Your task to perform on an android device: Search for sushi restaurants on Maps Image 0: 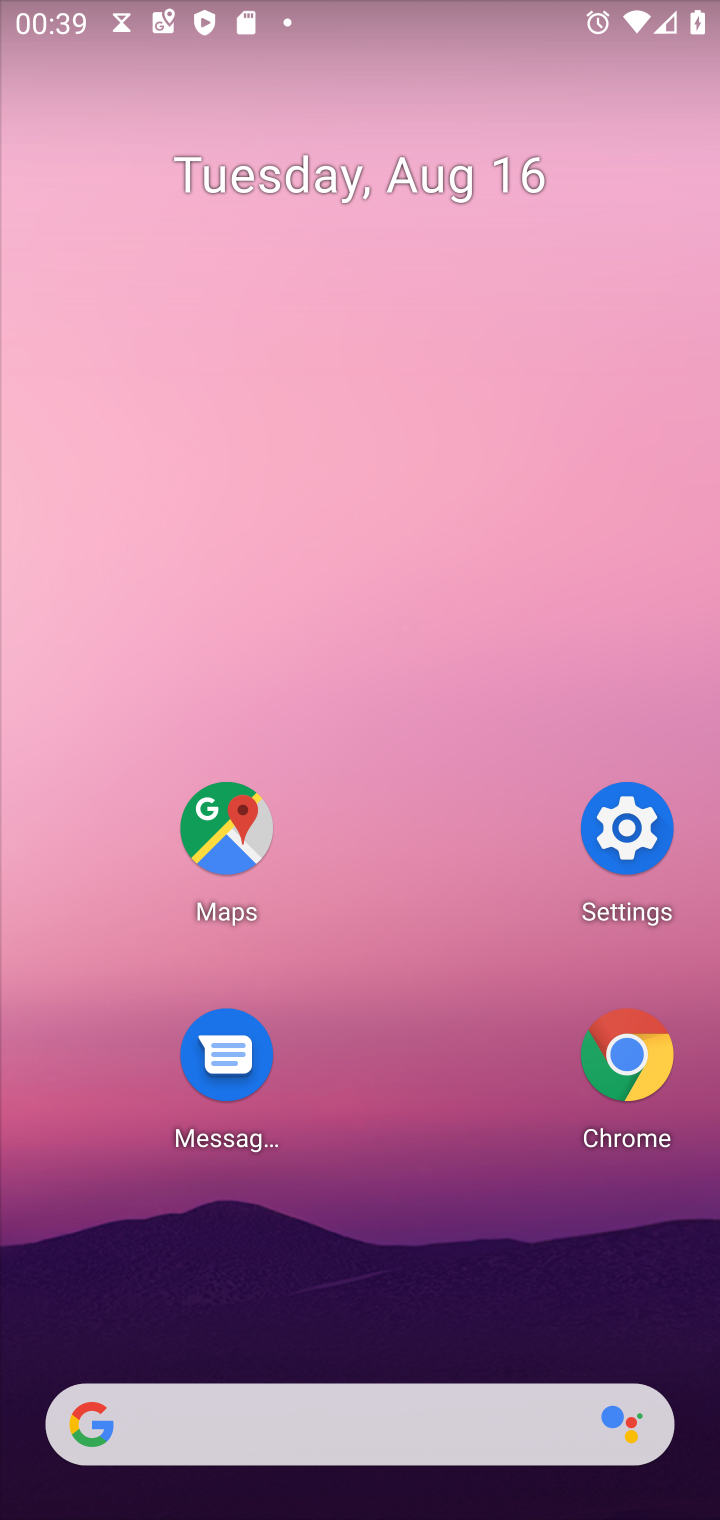
Step 0: press home button
Your task to perform on an android device: Search for sushi restaurants on Maps Image 1: 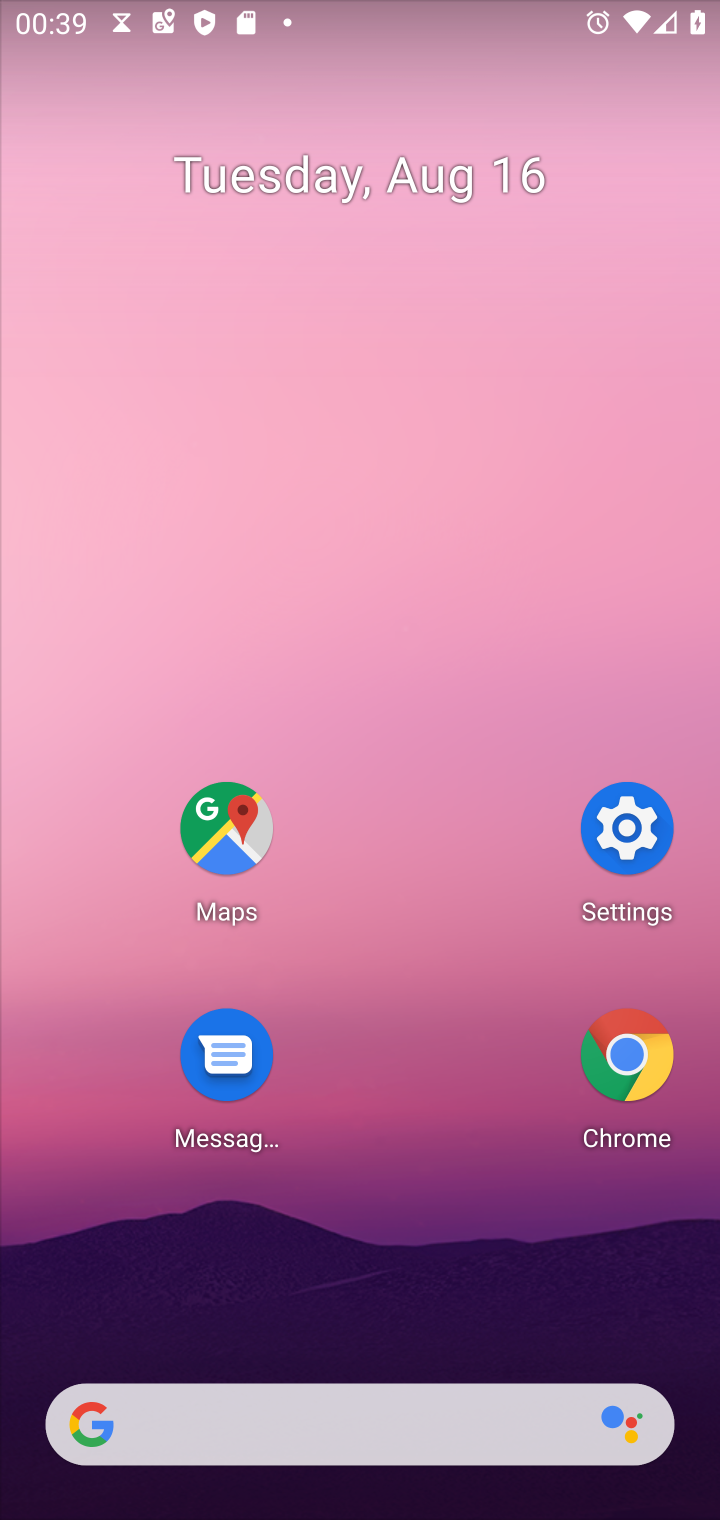
Step 1: click (218, 826)
Your task to perform on an android device: Search for sushi restaurants on Maps Image 2: 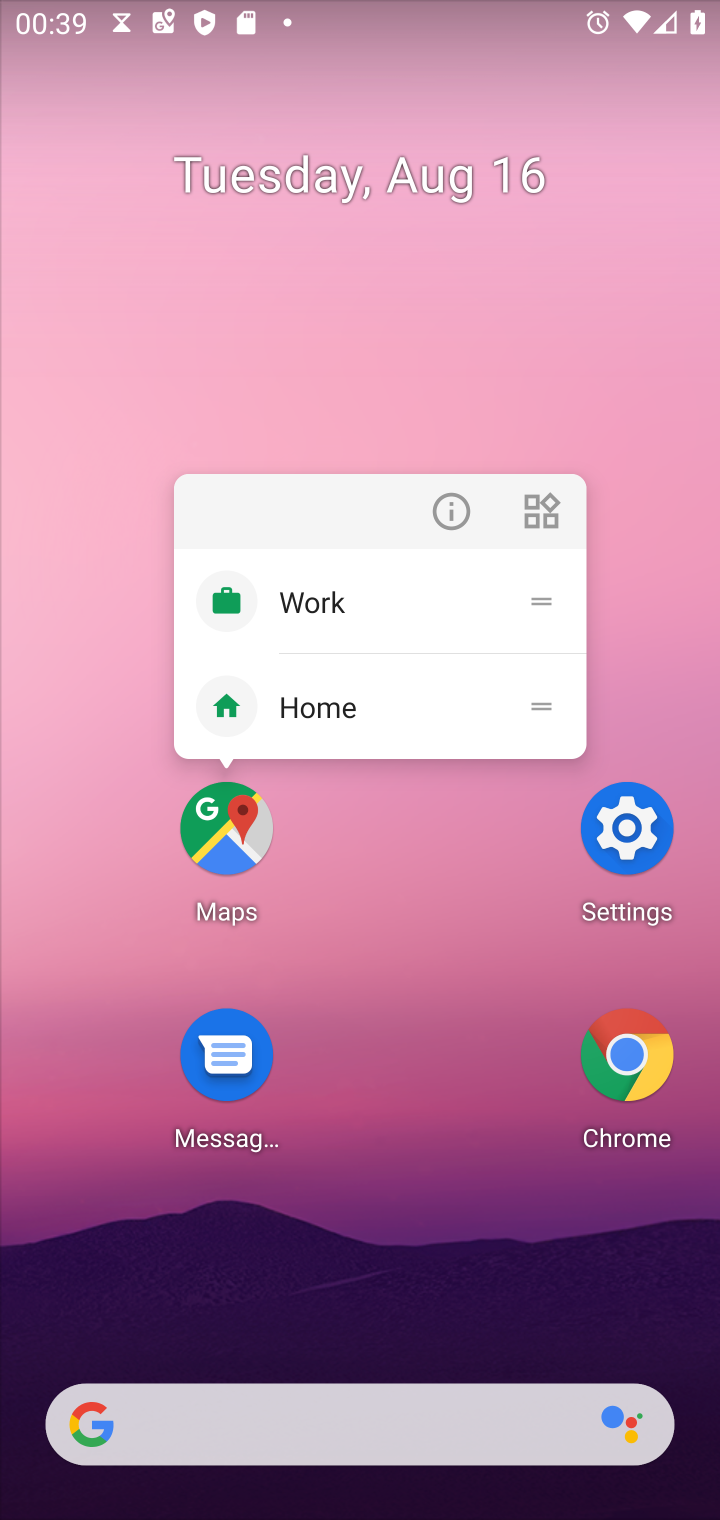
Step 2: click (218, 835)
Your task to perform on an android device: Search for sushi restaurants on Maps Image 3: 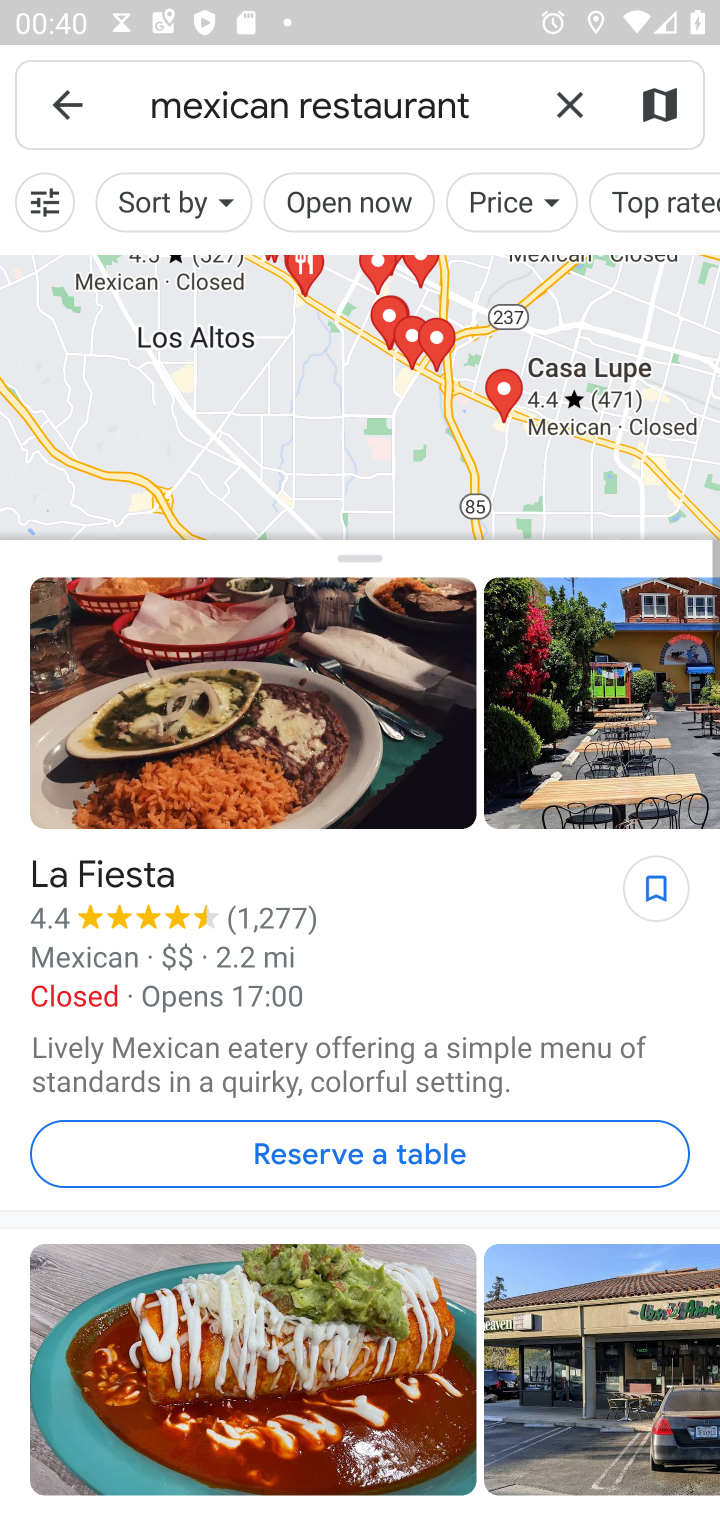
Step 3: click (568, 78)
Your task to perform on an android device: Search for sushi restaurants on Maps Image 4: 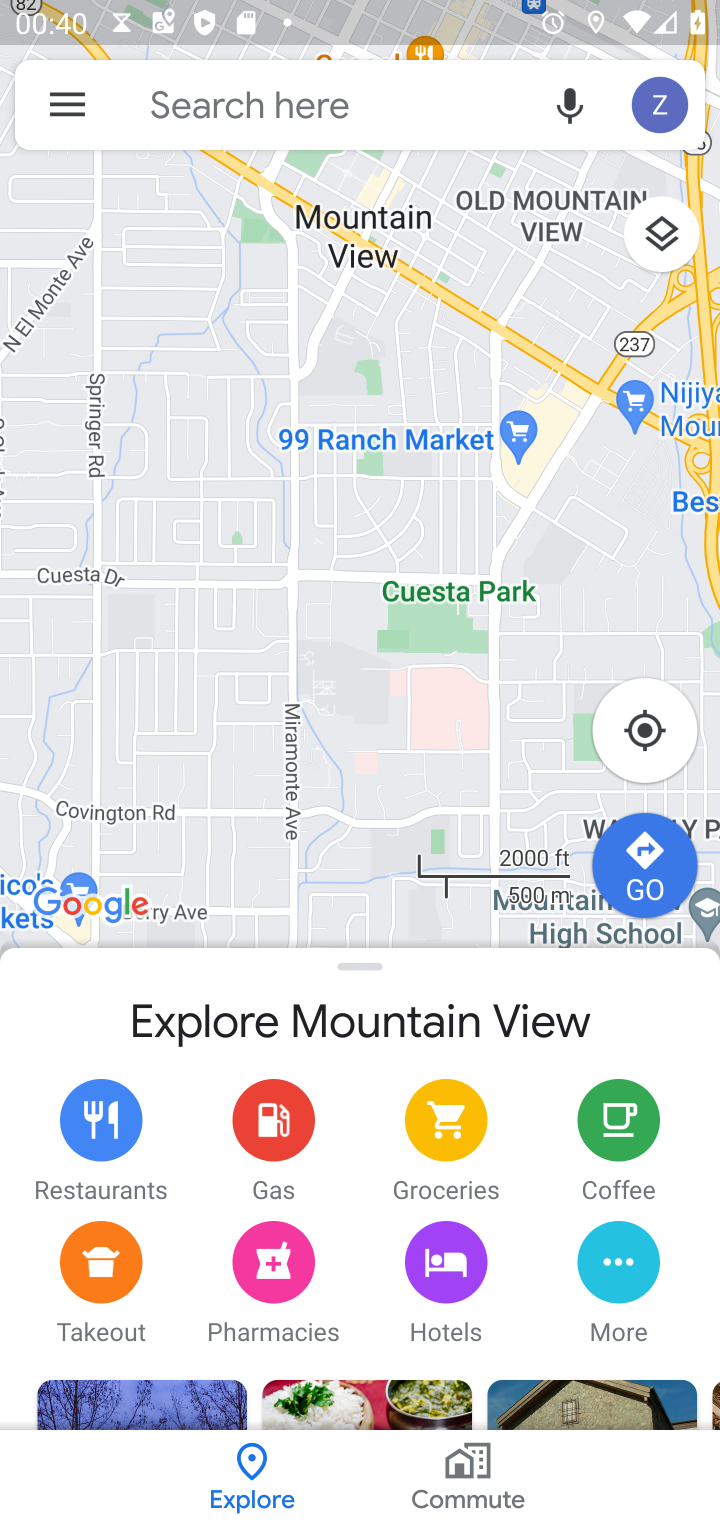
Step 4: click (308, 106)
Your task to perform on an android device: Search for sushi restaurants on Maps Image 5: 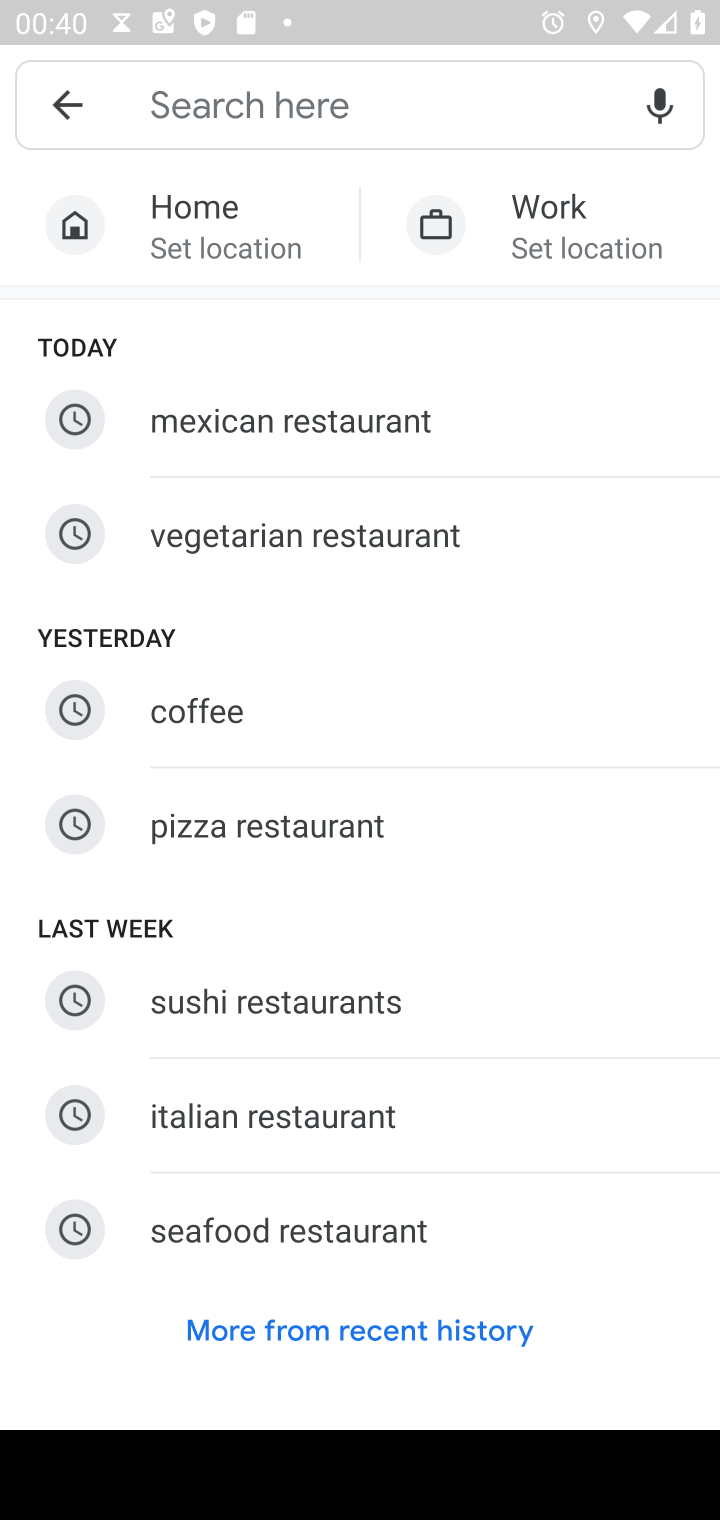
Step 5: click (326, 1006)
Your task to perform on an android device: Search for sushi restaurants on Maps Image 6: 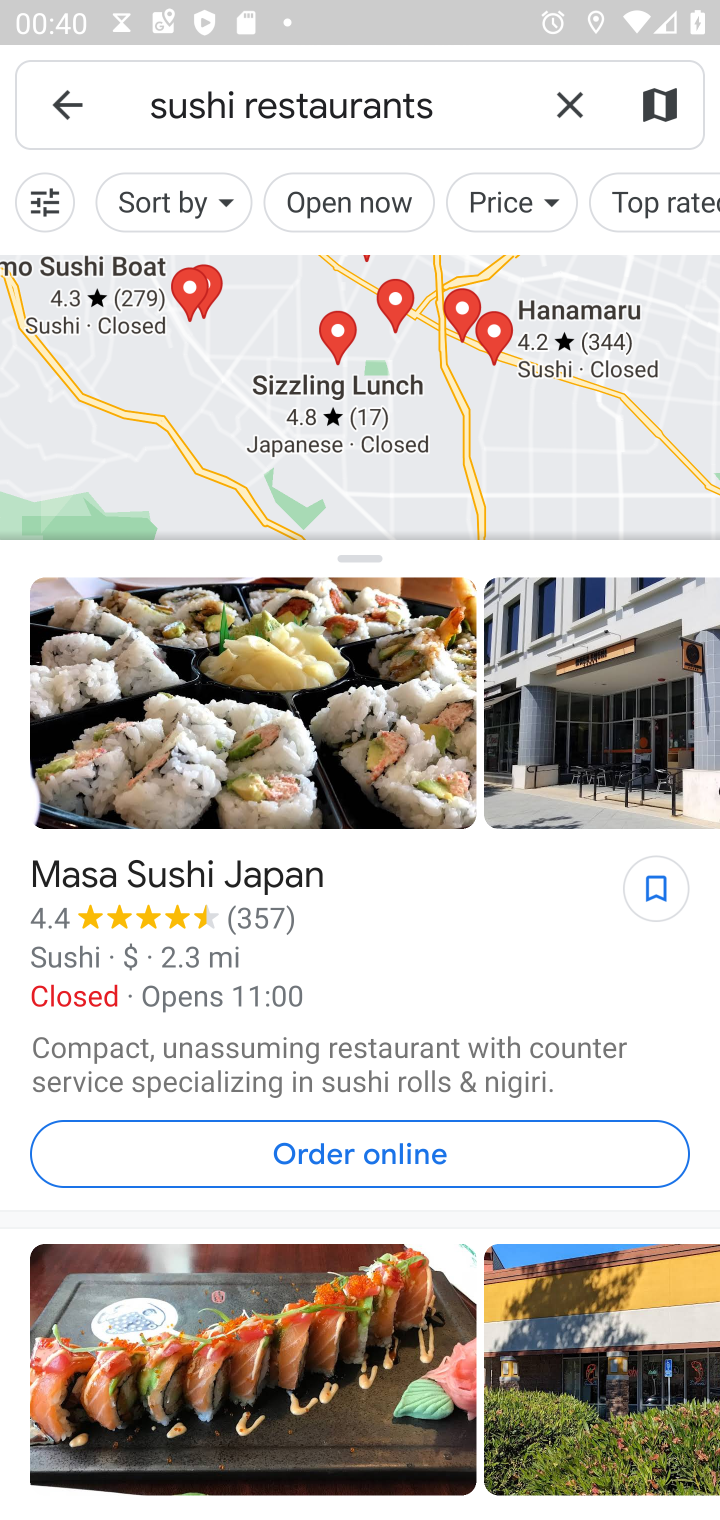
Step 6: task complete